Your task to perform on an android device: set the timer Image 0: 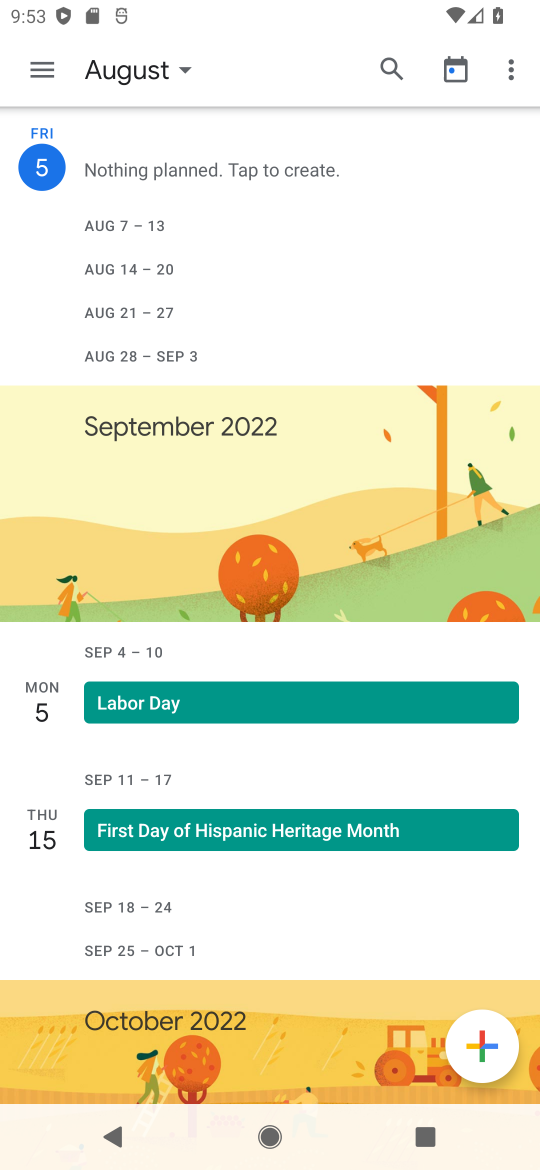
Step 0: task complete